Your task to perform on an android device: set an alarm Image 0: 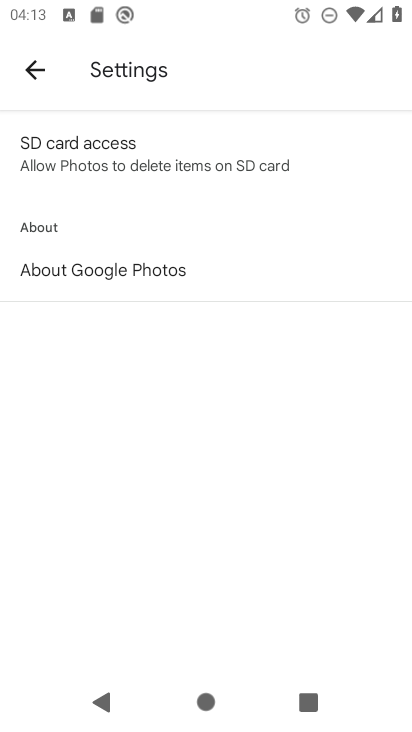
Step 0: press home button
Your task to perform on an android device: set an alarm Image 1: 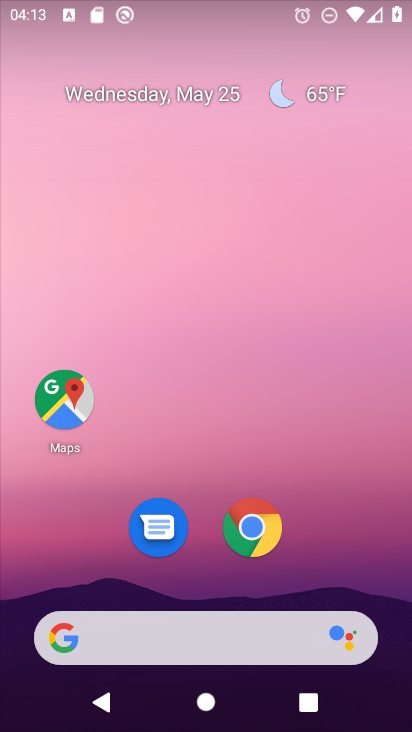
Step 1: drag from (334, 641) to (411, 10)
Your task to perform on an android device: set an alarm Image 2: 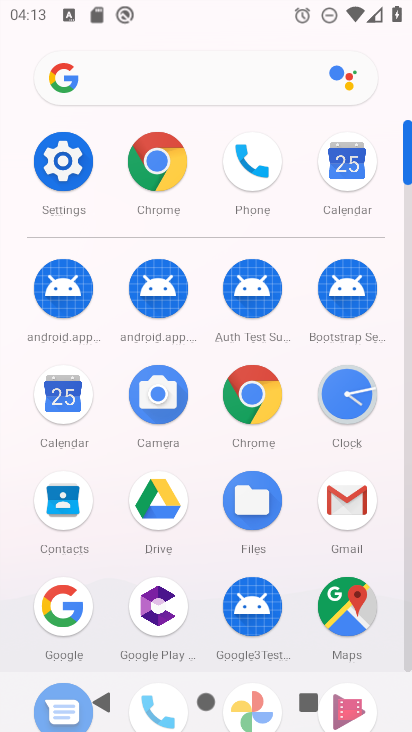
Step 2: click (360, 394)
Your task to perform on an android device: set an alarm Image 3: 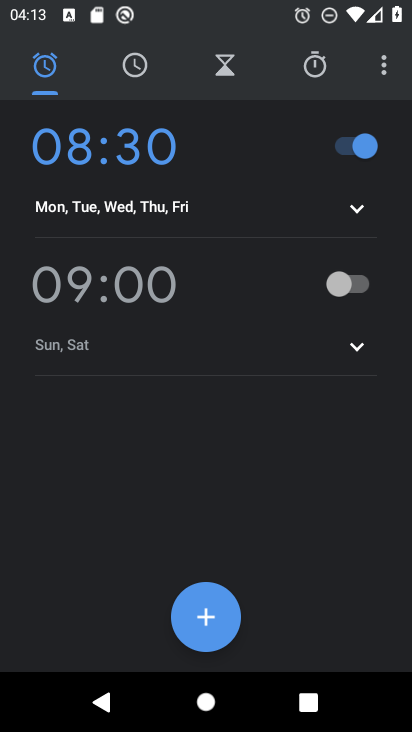
Step 3: task complete